Your task to perform on an android device: turn on data saver in the chrome app Image 0: 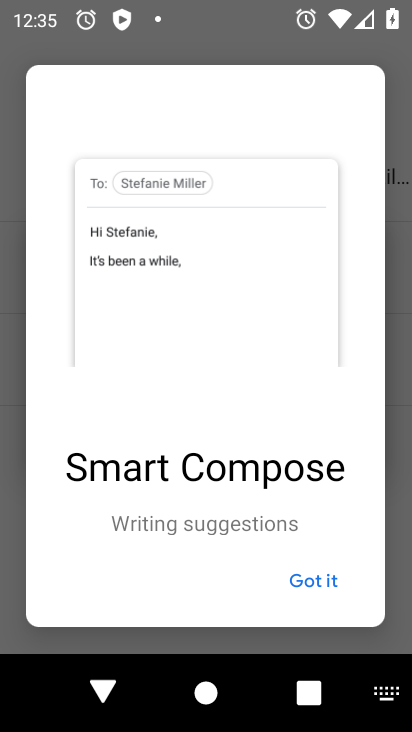
Step 0: press home button
Your task to perform on an android device: turn on data saver in the chrome app Image 1: 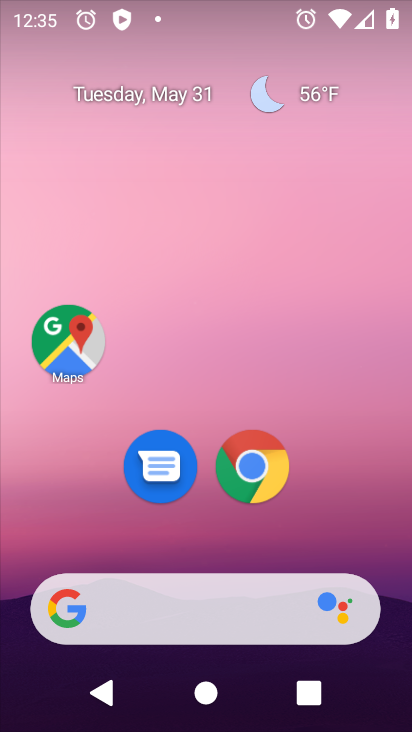
Step 1: click (241, 496)
Your task to perform on an android device: turn on data saver in the chrome app Image 2: 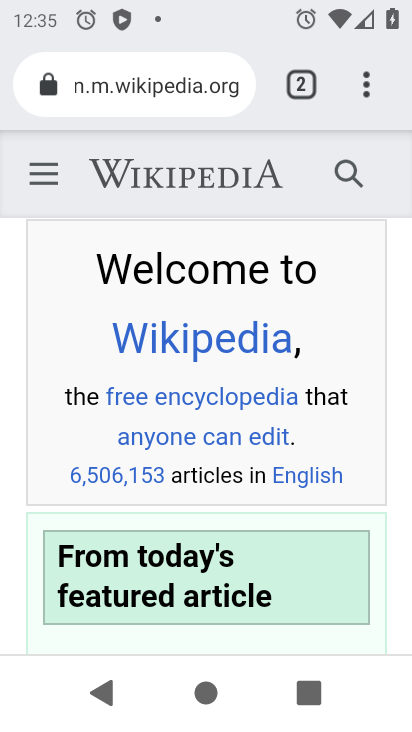
Step 2: click (365, 81)
Your task to perform on an android device: turn on data saver in the chrome app Image 3: 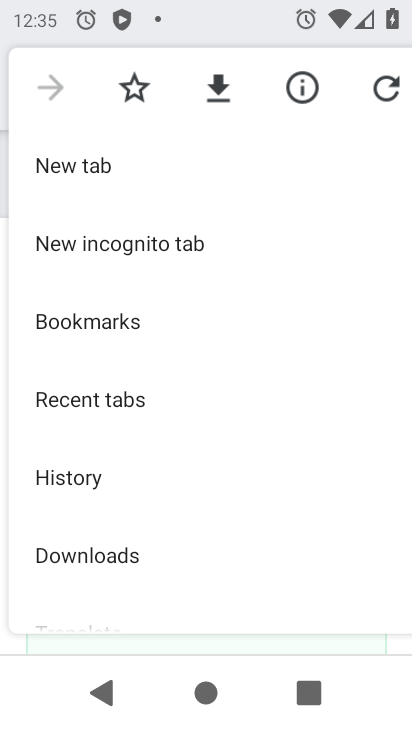
Step 3: drag from (159, 495) to (90, 28)
Your task to perform on an android device: turn on data saver in the chrome app Image 4: 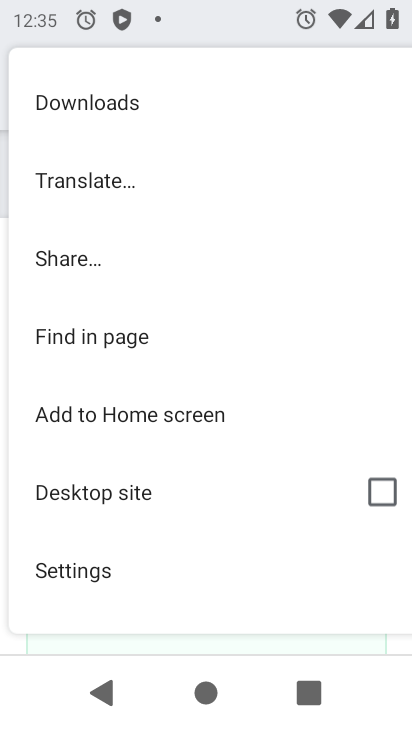
Step 4: click (93, 561)
Your task to perform on an android device: turn on data saver in the chrome app Image 5: 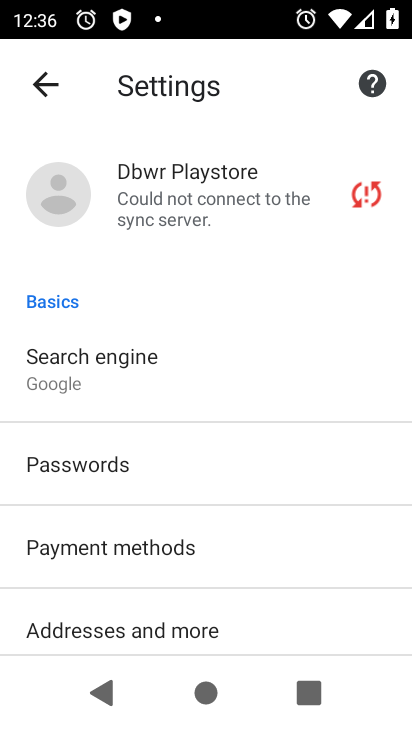
Step 5: drag from (160, 519) to (0, 37)
Your task to perform on an android device: turn on data saver in the chrome app Image 6: 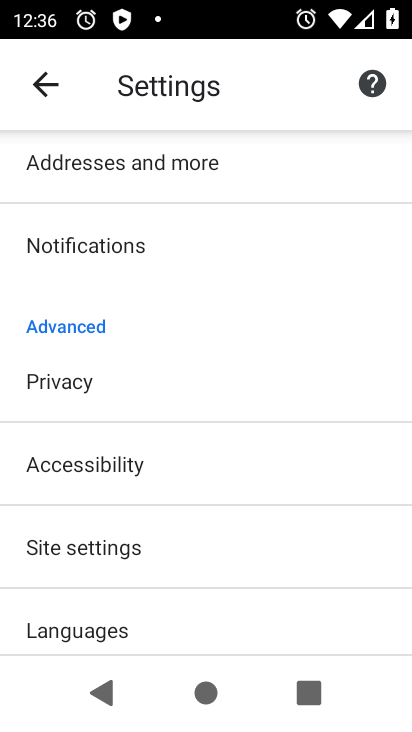
Step 6: drag from (141, 593) to (24, 5)
Your task to perform on an android device: turn on data saver in the chrome app Image 7: 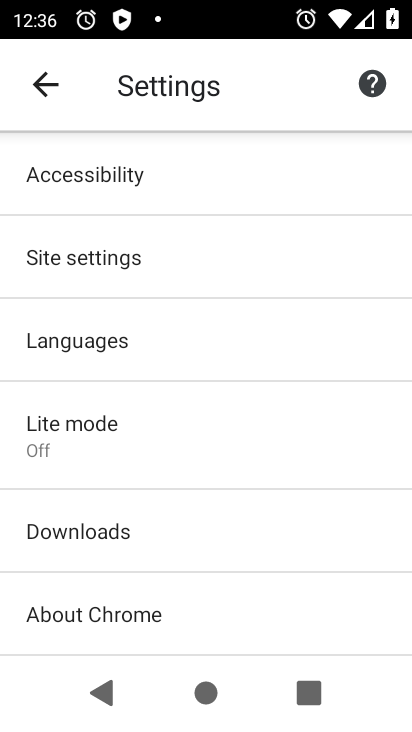
Step 7: click (160, 445)
Your task to perform on an android device: turn on data saver in the chrome app Image 8: 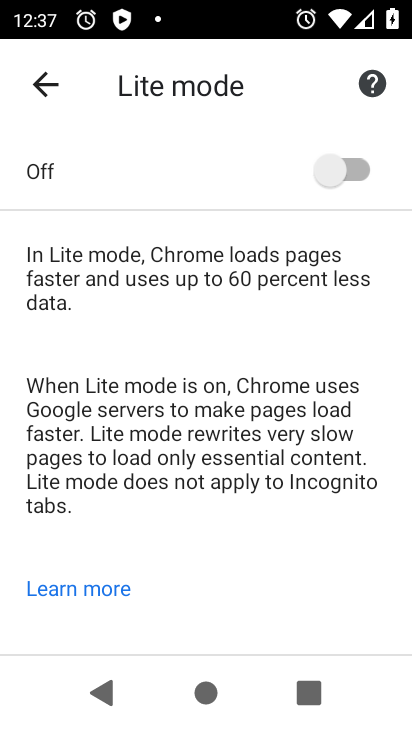
Step 8: click (340, 180)
Your task to perform on an android device: turn on data saver in the chrome app Image 9: 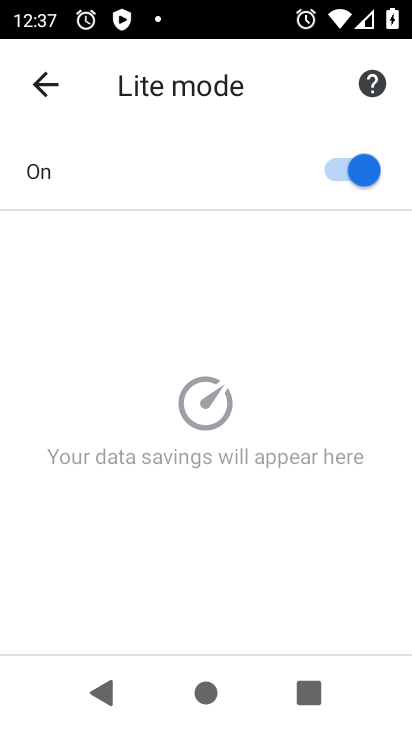
Step 9: task complete